Your task to perform on an android device: open app "DoorDash - Food Delivery" (install if not already installed) Image 0: 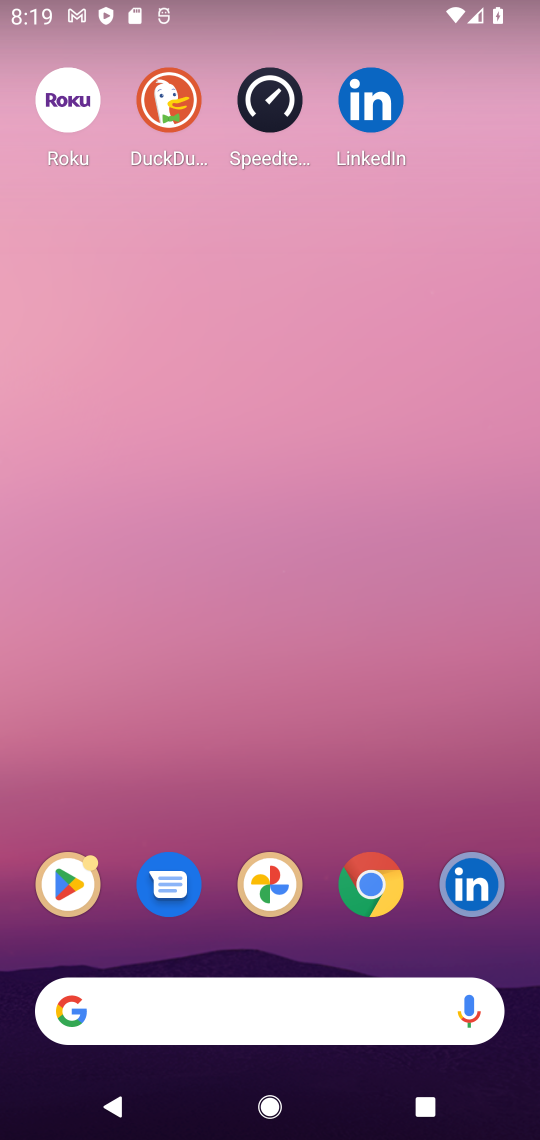
Step 0: click (42, 872)
Your task to perform on an android device: open app "DoorDash - Food Delivery" (install if not already installed) Image 1: 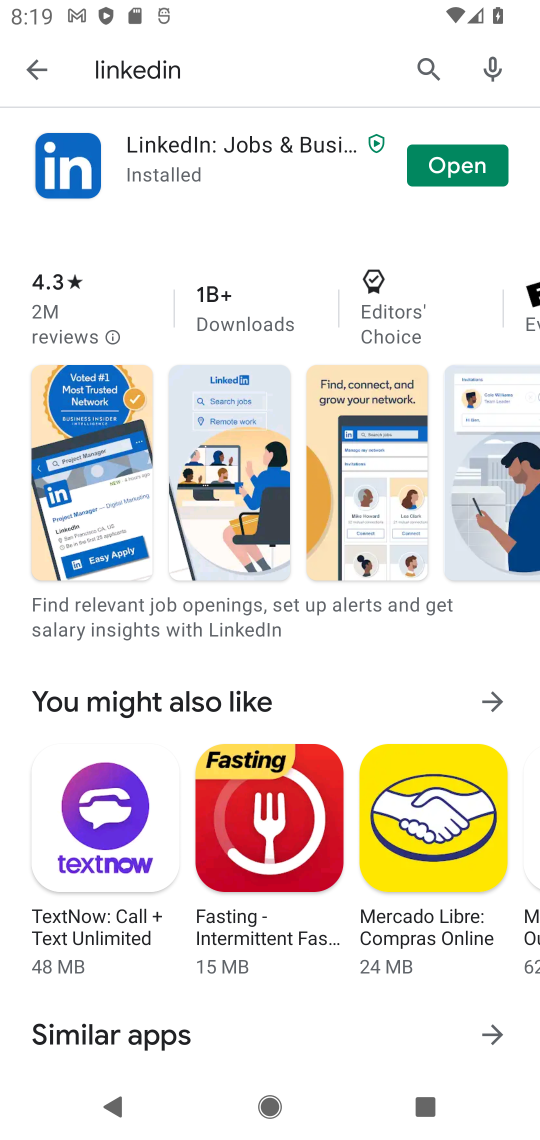
Step 1: click (424, 70)
Your task to perform on an android device: open app "DoorDash - Food Delivery" (install if not already installed) Image 2: 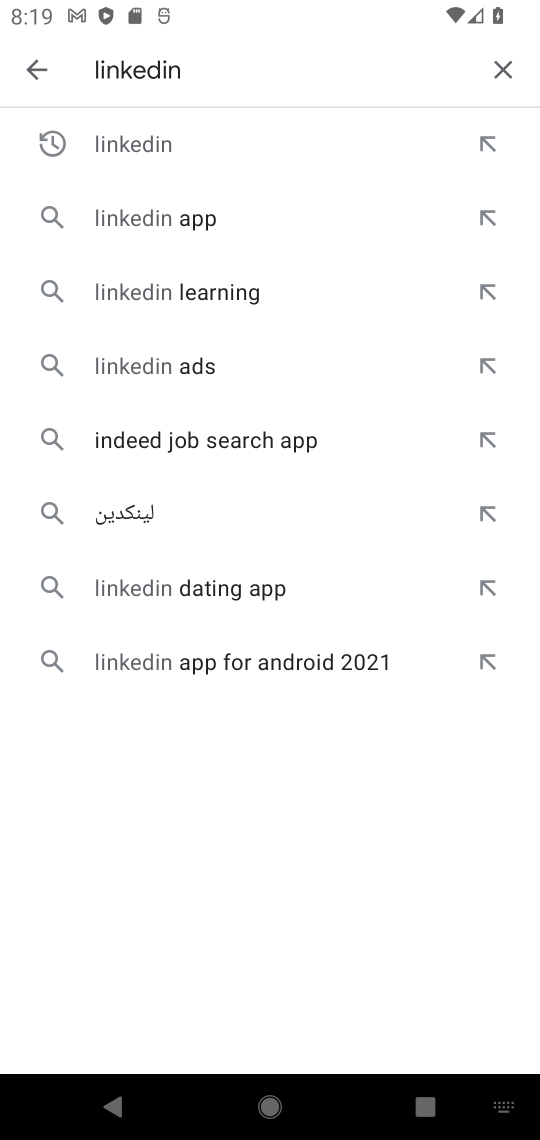
Step 2: click (503, 67)
Your task to perform on an android device: open app "DoorDash - Food Delivery" (install if not already installed) Image 3: 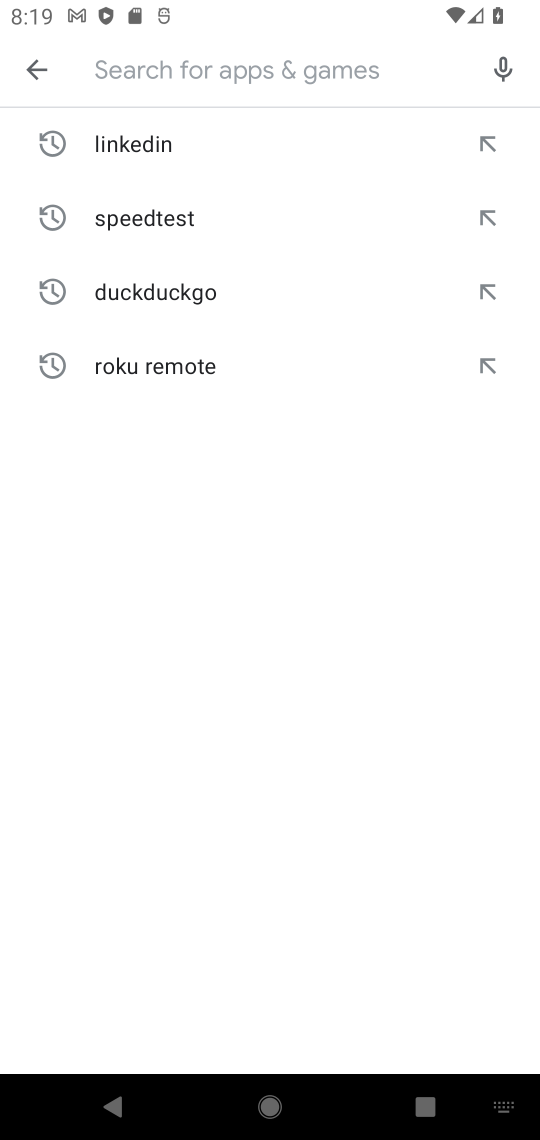
Step 3: type "doordash"
Your task to perform on an android device: open app "DoorDash - Food Delivery" (install if not already installed) Image 4: 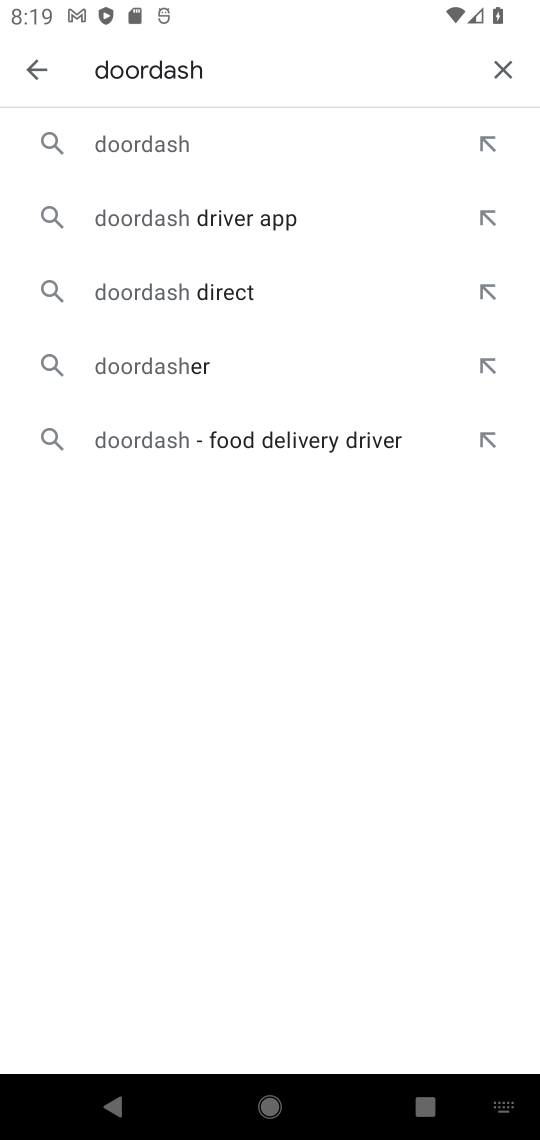
Step 4: click (187, 147)
Your task to perform on an android device: open app "DoorDash - Food Delivery" (install if not already installed) Image 5: 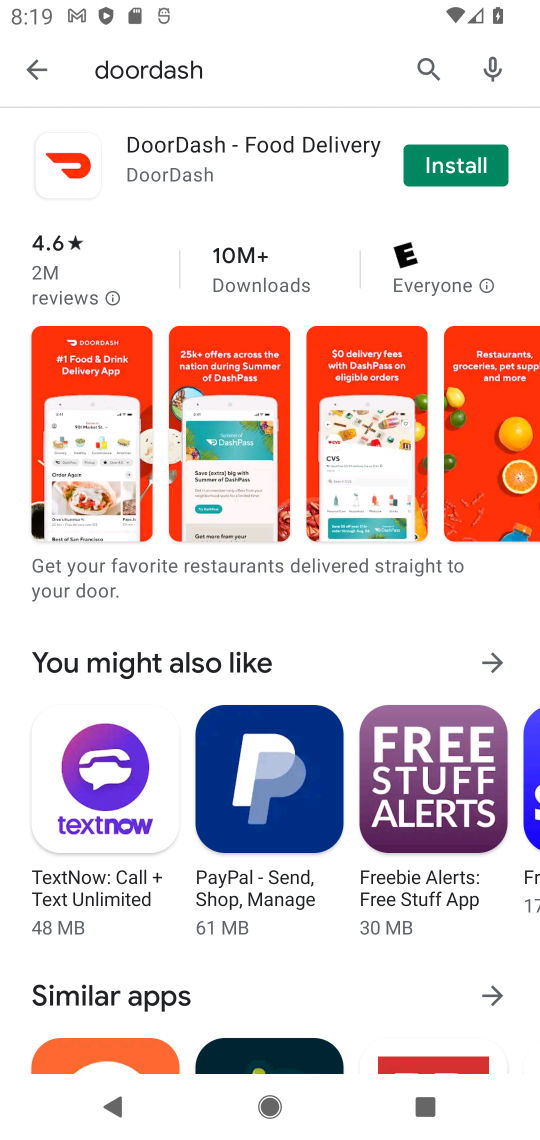
Step 5: click (450, 166)
Your task to perform on an android device: open app "DoorDash - Food Delivery" (install if not already installed) Image 6: 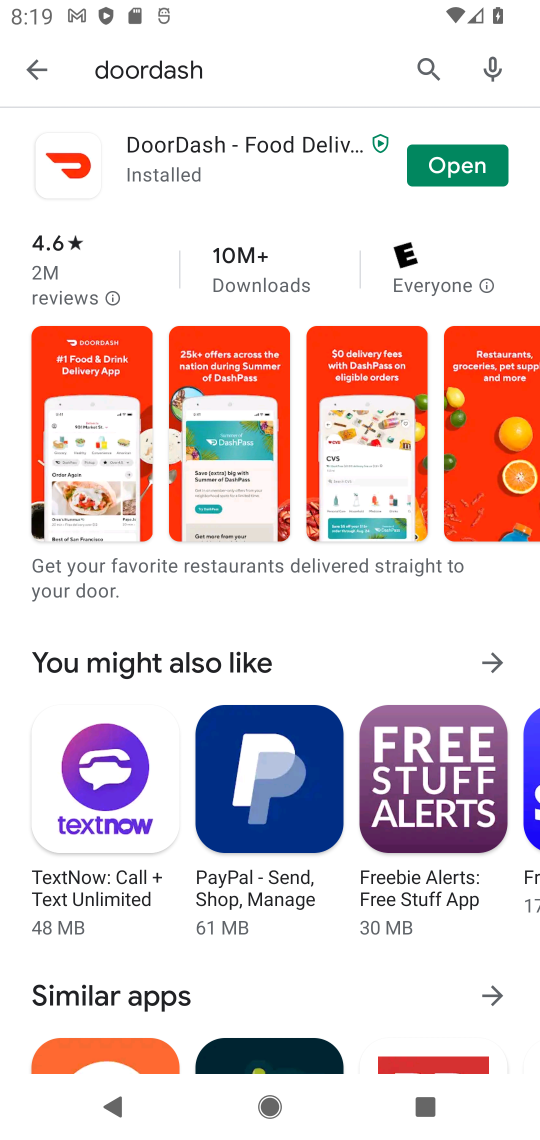
Step 6: click (450, 166)
Your task to perform on an android device: open app "DoorDash - Food Delivery" (install if not already installed) Image 7: 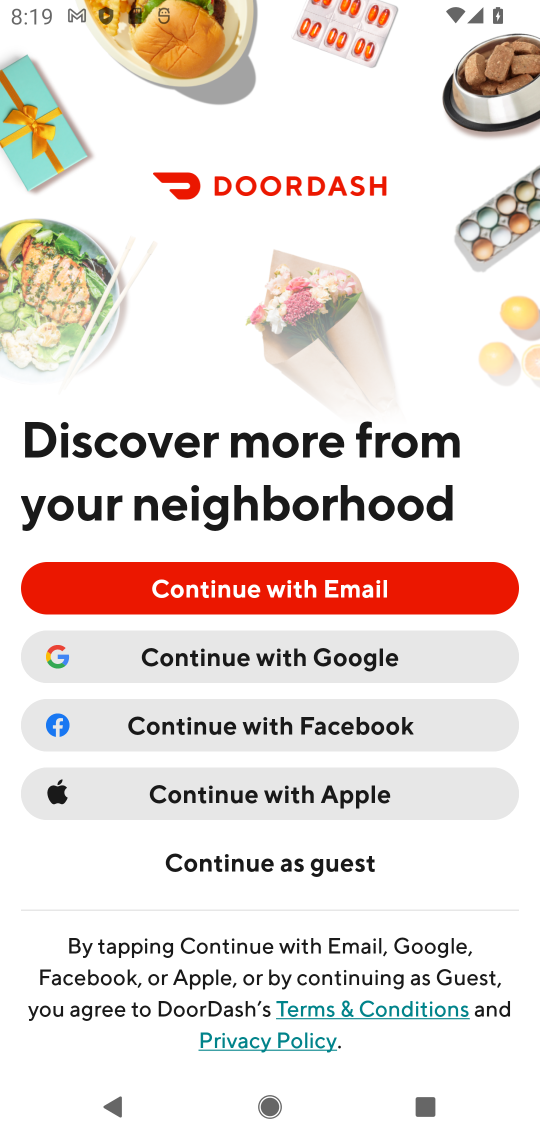
Step 7: task complete